Your task to perform on an android device: Open battery settings Image 0: 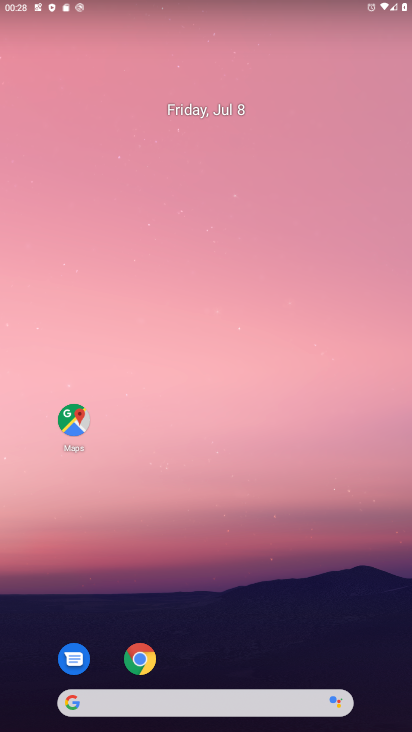
Step 0: drag from (326, 10) to (356, 490)
Your task to perform on an android device: Open battery settings Image 1: 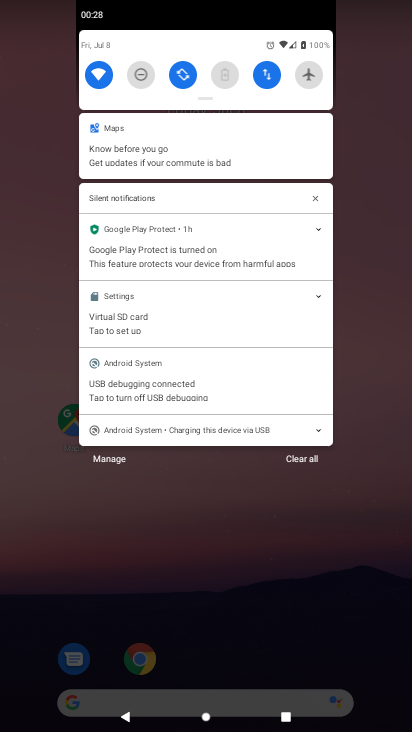
Step 1: click (223, 77)
Your task to perform on an android device: Open battery settings Image 2: 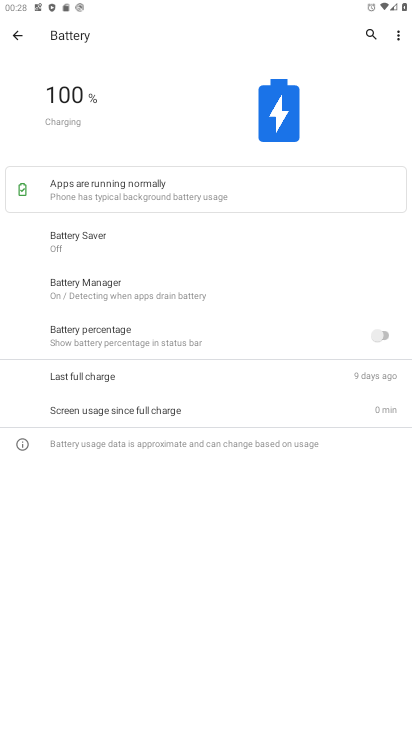
Step 2: task complete